Your task to perform on an android device: show emergency info Image 0: 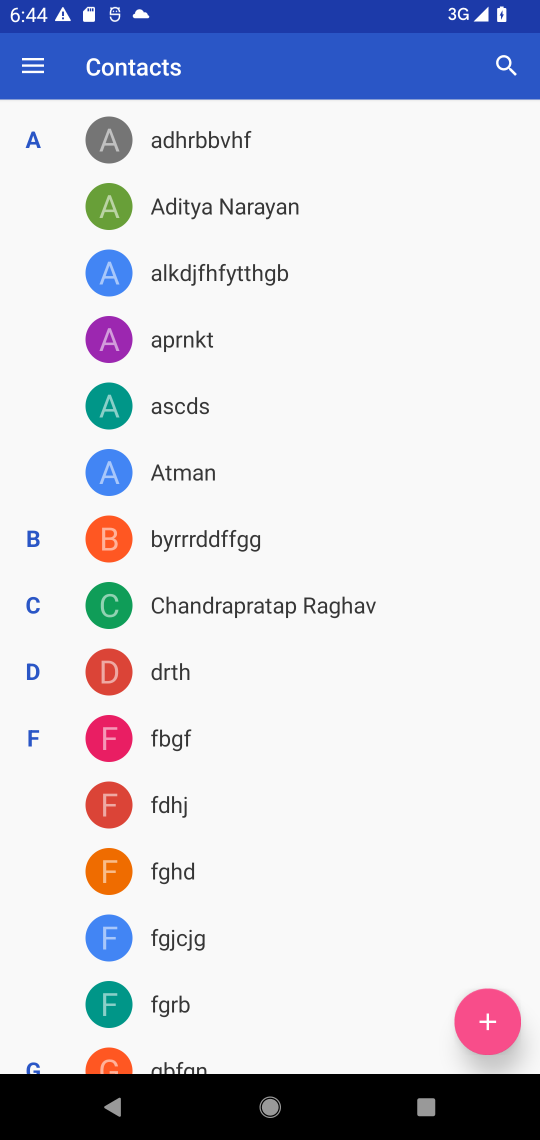
Step 0: press home button
Your task to perform on an android device: show emergency info Image 1: 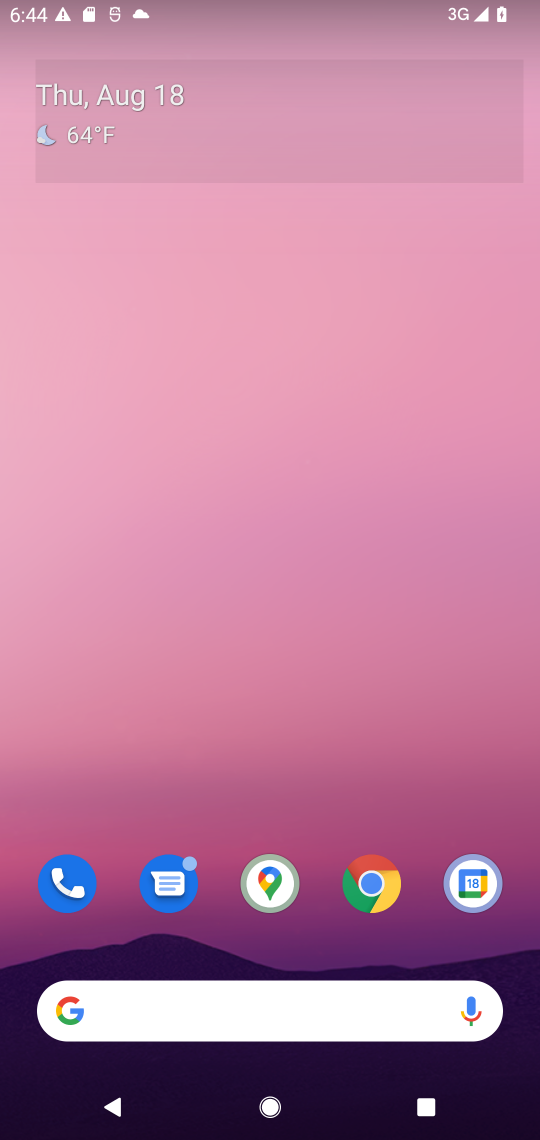
Step 1: drag from (27, 1095) to (394, 139)
Your task to perform on an android device: show emergency info Image 2: 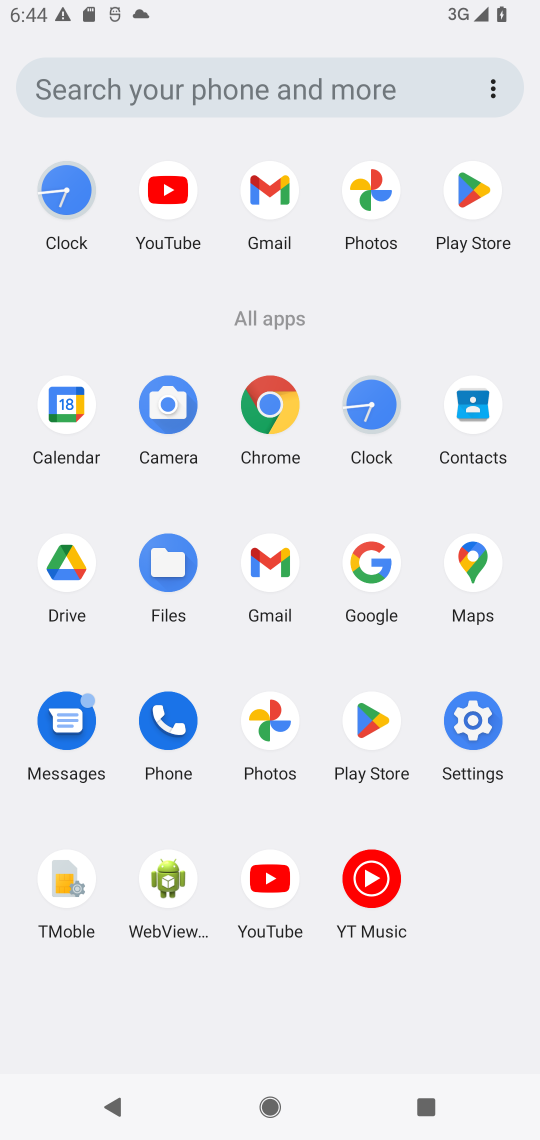
Step 2: click (476, 724)
Your task to perform on an android device: show emergency info Image 3: 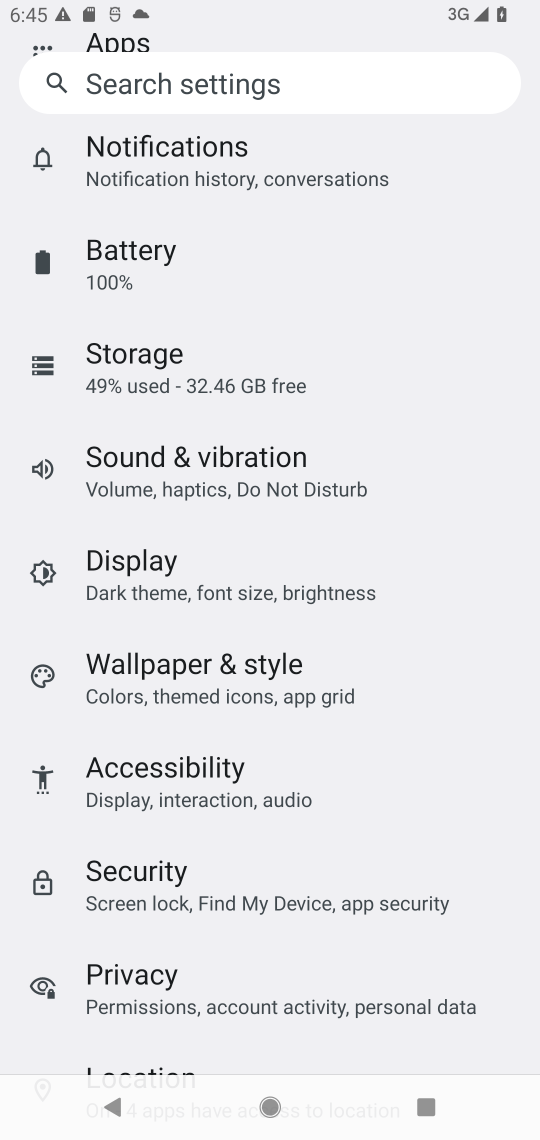
Step 3: click (187, 163)
Your task to perform on an android device: show emergency info Image 4: 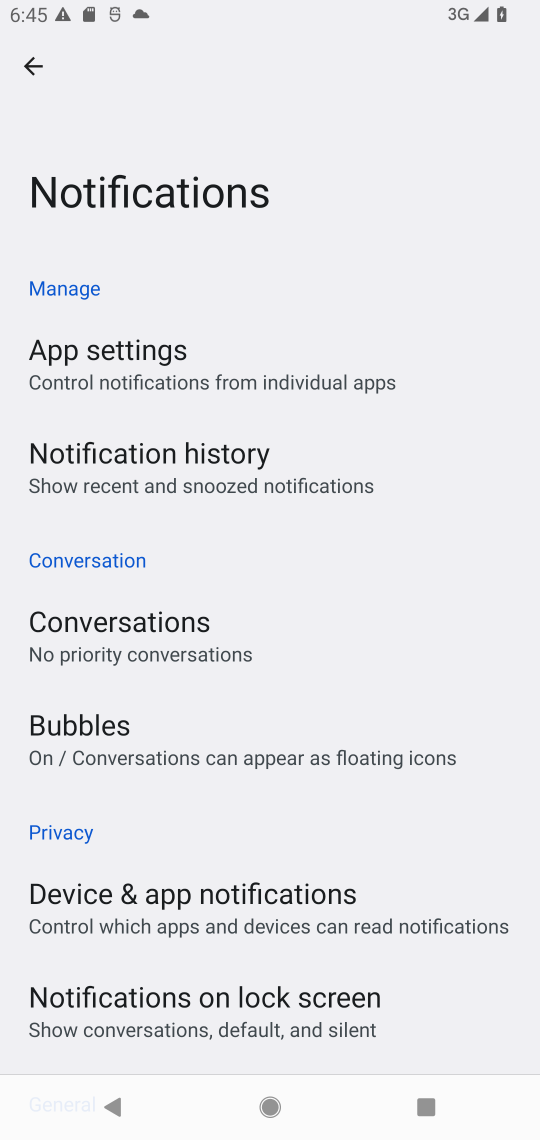
Step 4: drag from (419, 1065) to (248, 325)
Your task to perform on an android device: show emergency info Image 5: 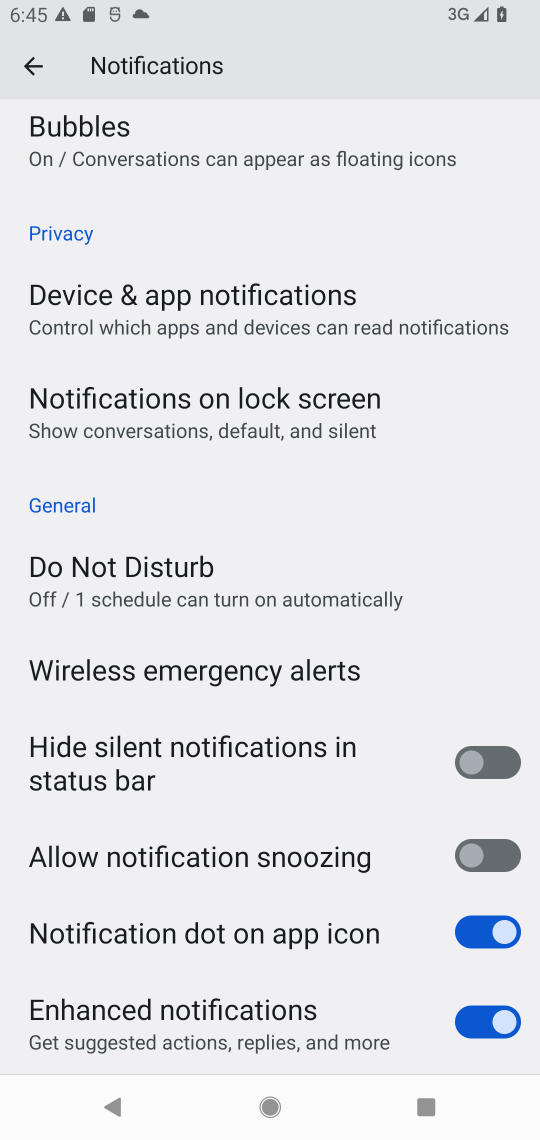
Step 5: drag from (471, 575) to (367, 127)
Your task to perform on an android device: show emergency info Image 6: 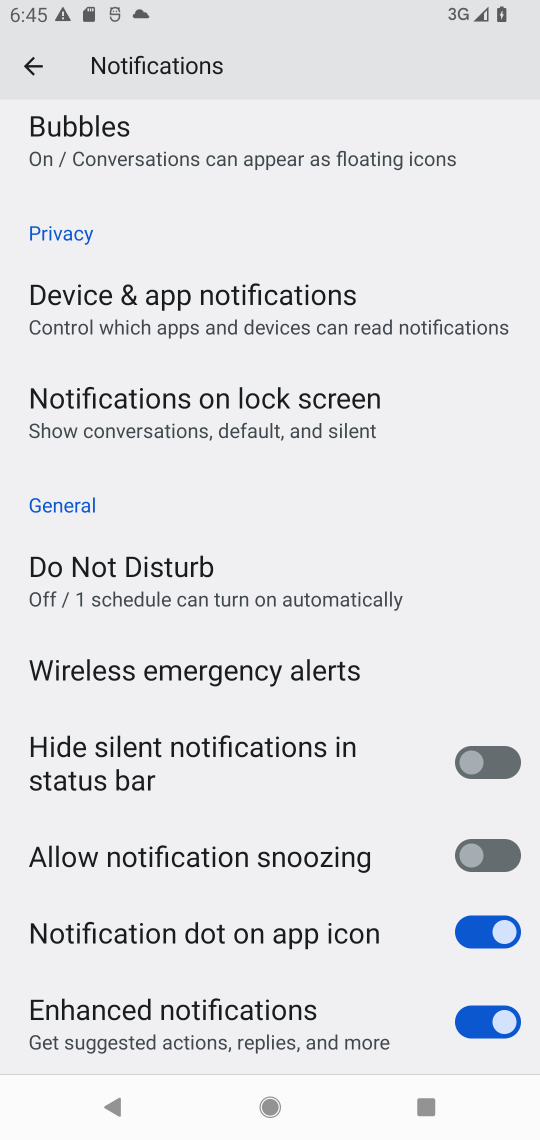
Step 6: click (273, 674)
Your task to perform on an android device: show emergency info Image 7: 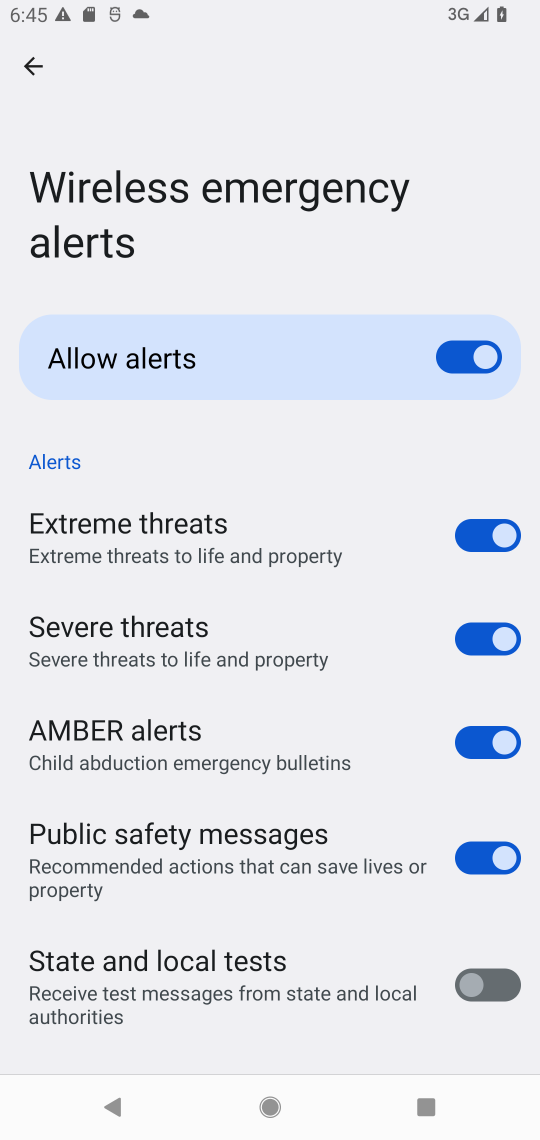
Step 7: task complete